Your task to perform on an android device: star an email in the gmail app Image 0: 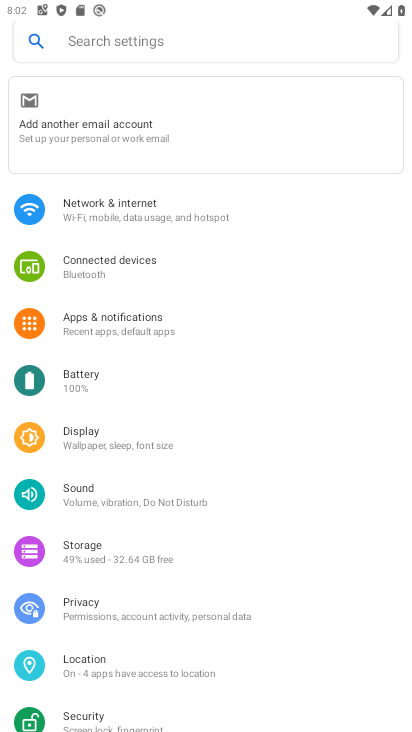
Step 0: press home button
Your task to perform on an android device: star an email in the gmail app Image 1: 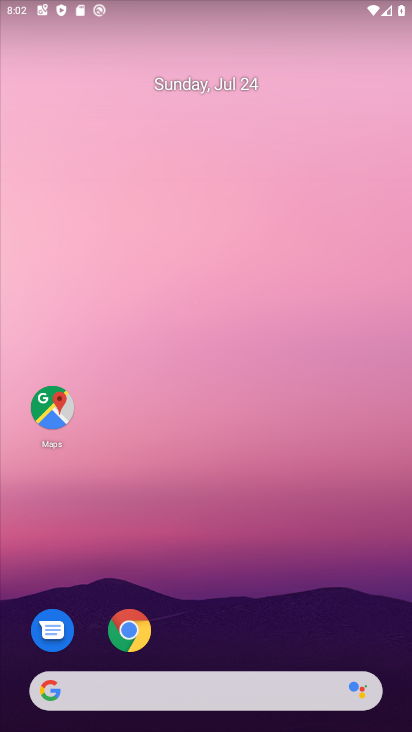
Step 1: drag from (211, 645) to (213, 143)
Your task to perform on an android device: star an email in the gmail app Image 2: 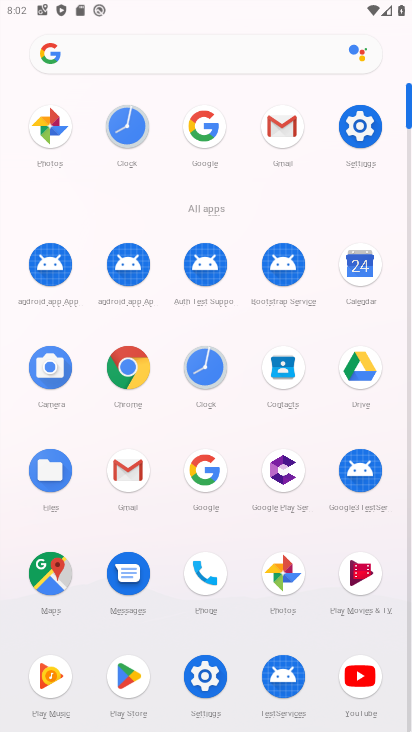
Step 2: click (284, 137)
Your task to perform on an android device: star an email in the gmail app Image 3: 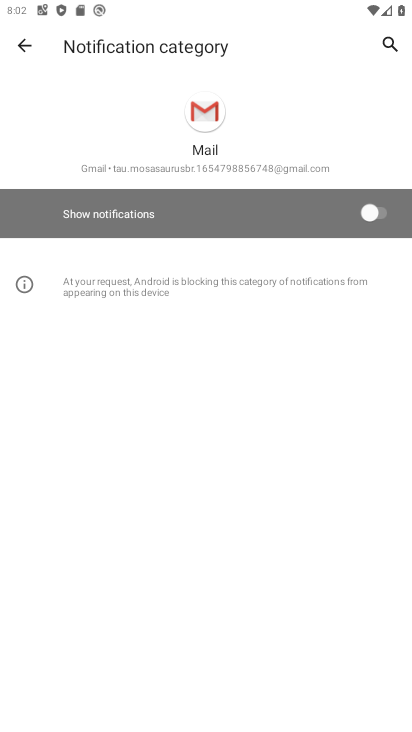
Step 3: click (39, 53)
Your task to perform on an android device: star an email in the gmail app Image 4: 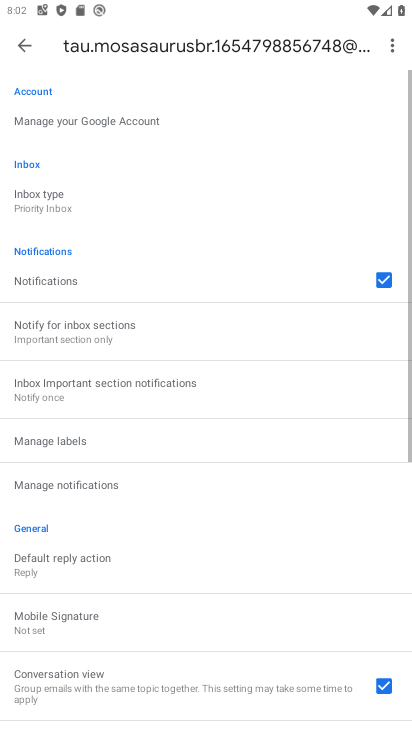
Step 4: click (39, 53)
Your task to perform on an android device: star an email in the gmail app Image 5: 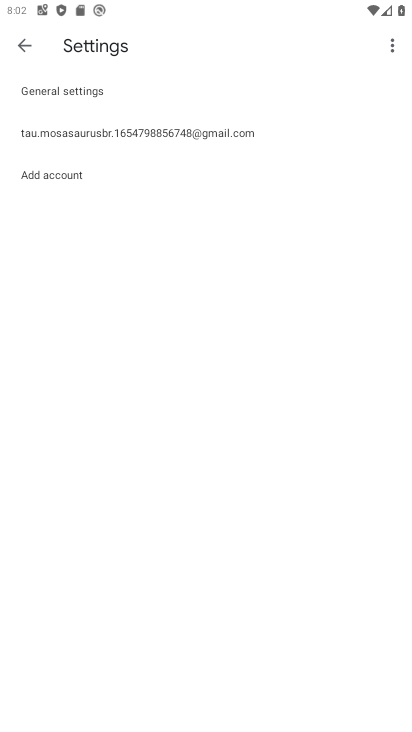
Step 5: click (32, 60)
Your task to perform on an android device: star an email in the gmail app Image 6: 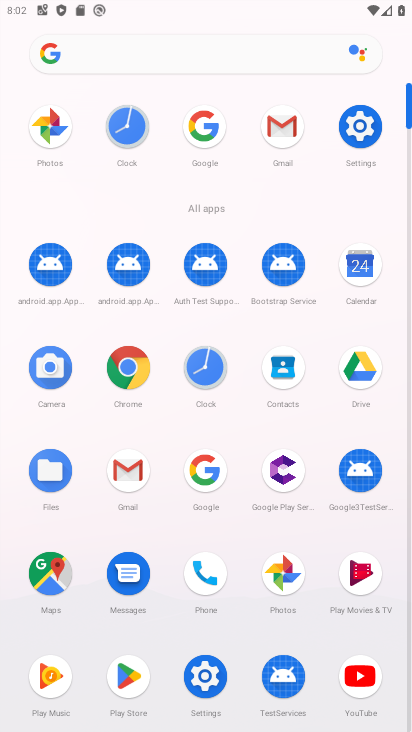
Step 6: click (274, 151)
Your task to perform on an android device: star an email in the gmail app Image 7: 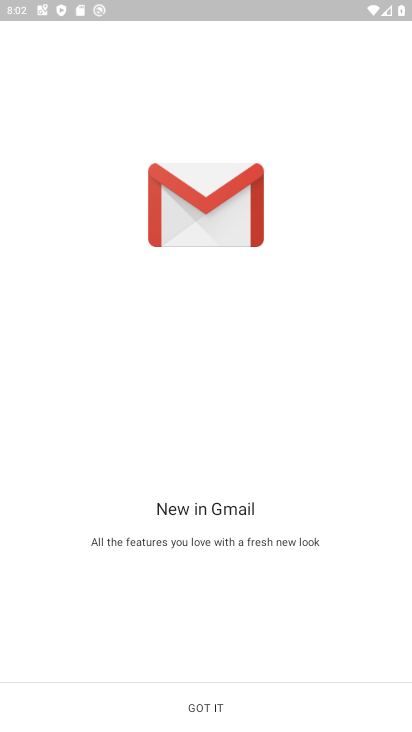
Step 7: click (287, 711)
Your task to perform on an android device: star an email in the gmail app Image 8: 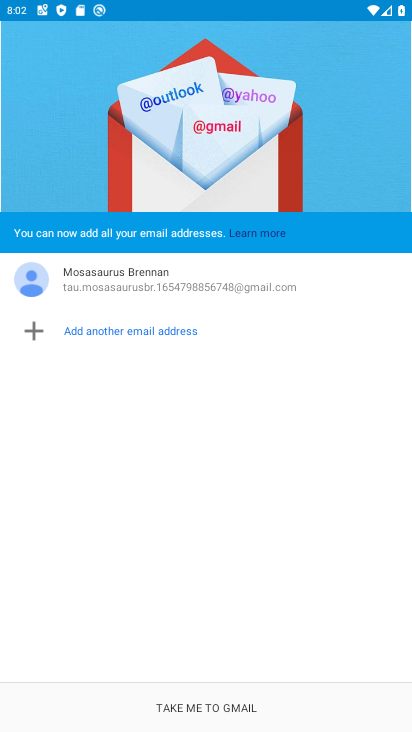
Step 8: click (260, 716)
Your task to perform on an android device: star an email in the gmail app Image 9: 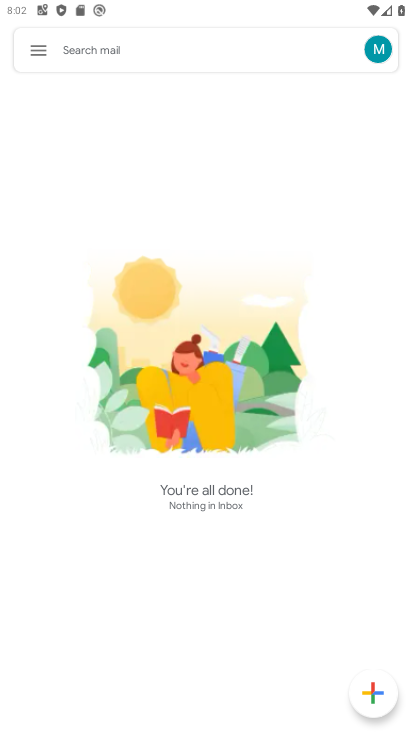
Step 9: task complete